Your task to perform on an android device: Search for "bose soundlink mini" on bestbuy, select the first entry, and add it to the cart. Image 0: 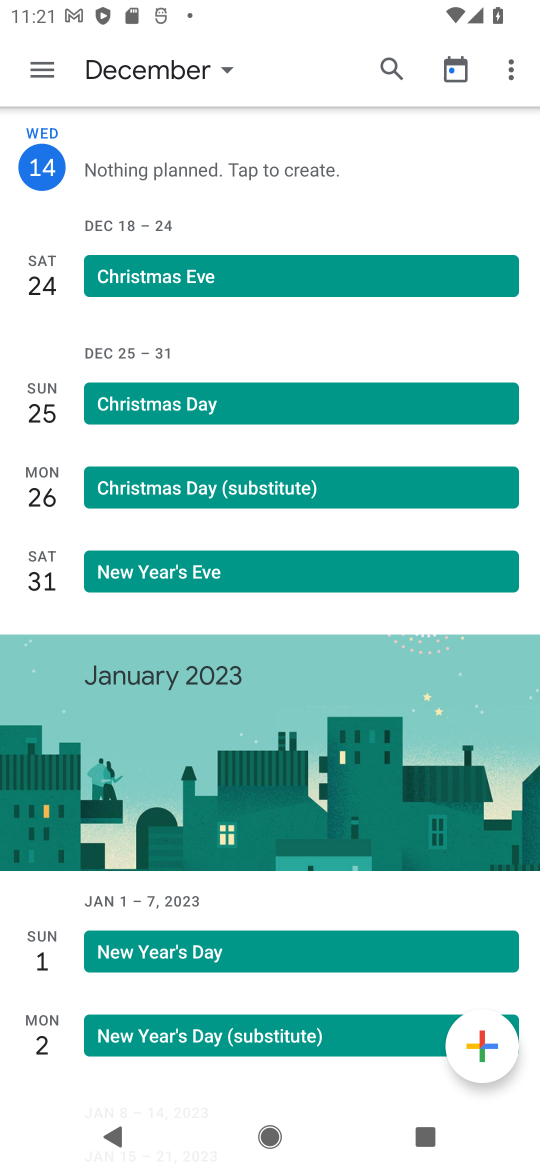
Step 0: press home button
Your task to perform on an android device: Search for "bose soundlink mini" on bestbuy, select the first entry, and add it to the cart. Image 1: 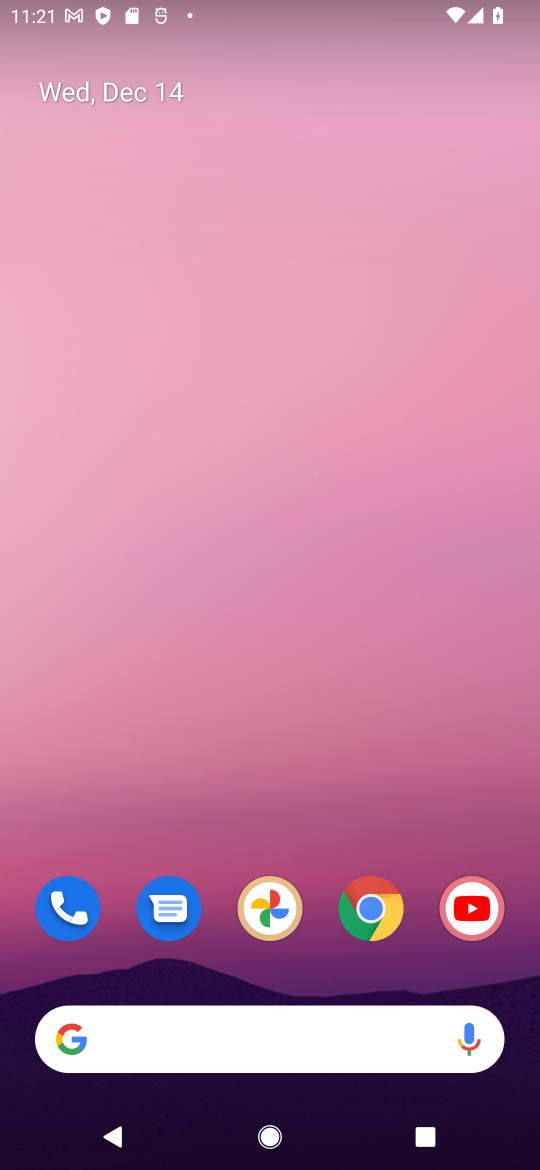
Step 1: click (370, 919)
Your task to perform on an android device: Search for "bose soundlink mini" on bestbuy, select the first entry, and add it to the cart. Image 2: 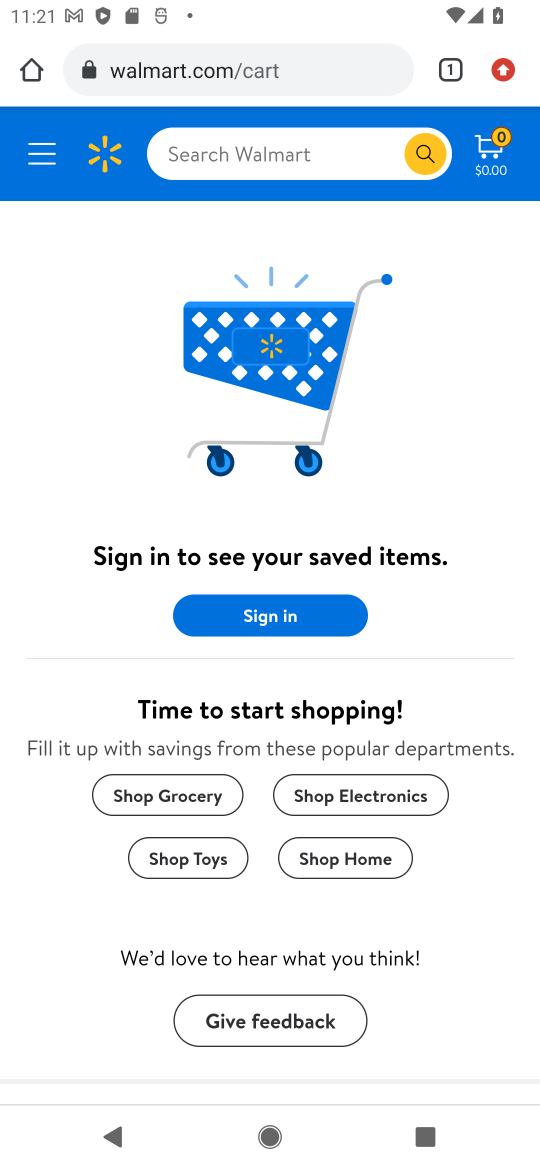
Step 2: click (212, 73)
Your task to perform on an android device: Search for "bose soundlink mini" on bestbuy, select the first entry, and add it to the cart. Image 3: 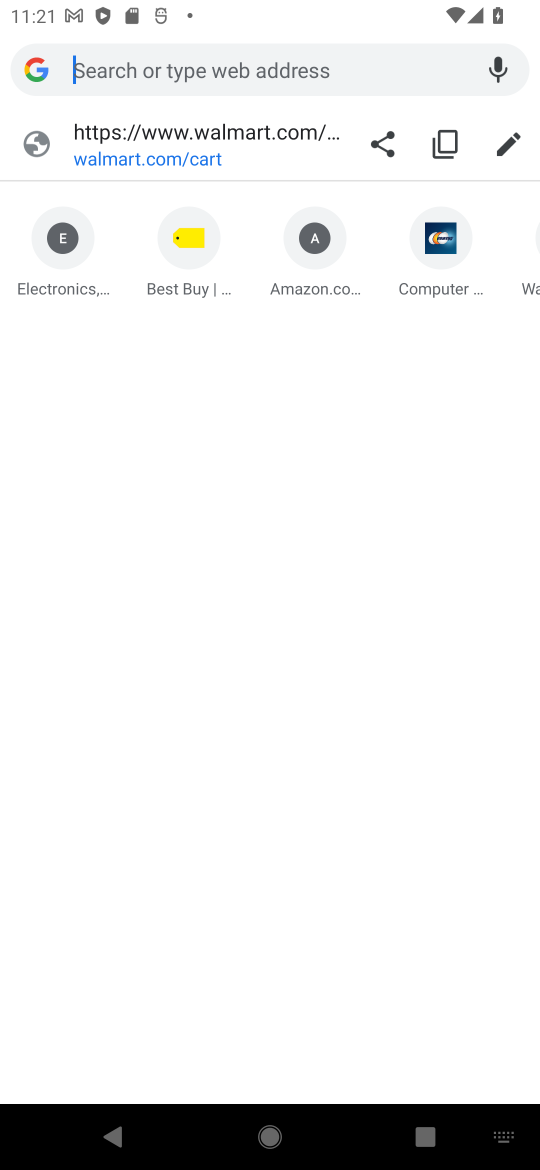
Step 3: click (174, 282)
Your task to perform on an android device: Search for "bose soundlink mini" on bestbuy, select the first entry, and add it to the cart. Image 4: 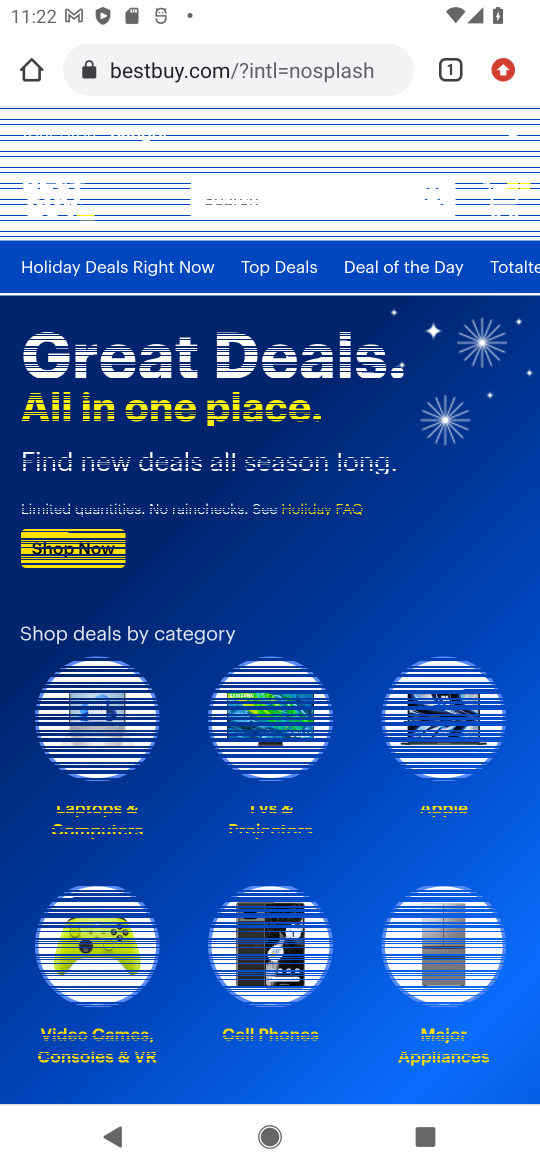
Step 4: click (229, 203)
Your task to perform on an android device: Search for "bose soundlink mini" on bestbuy, select the first entry, and add it to the cart. Image 5: 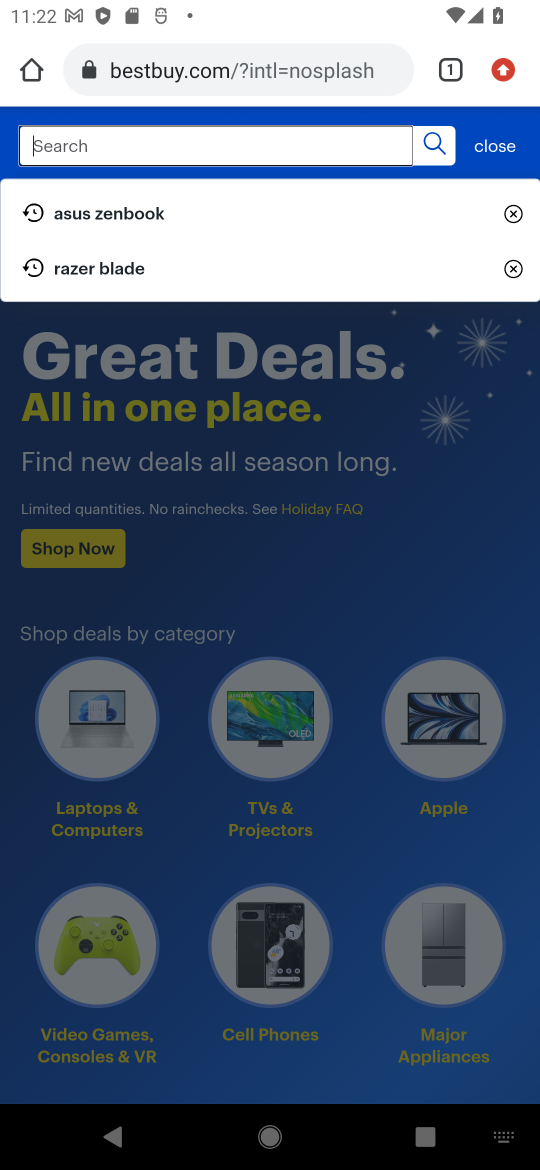
Step 5: type "bose soundlink mini"
Your task to perform on an android device: Search for "bose soundlink mini" on bestbuy, select the first entry, and add it to the cart. Image 6: 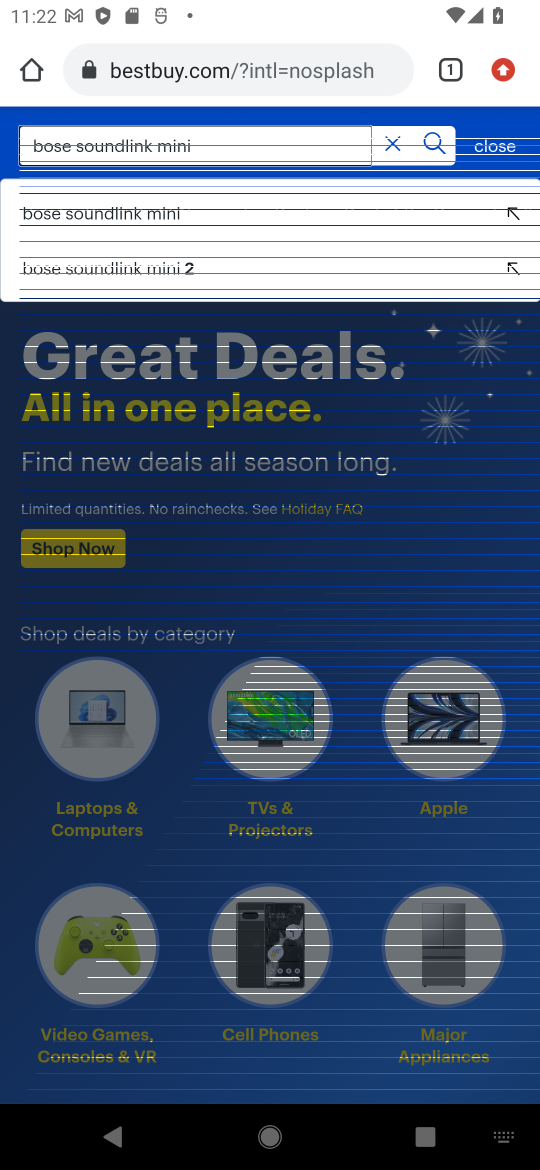
Step 6: click (82, 223)
Your task to perform on an android device: Search for "bose soundlink mini" on bestbuy, select the first entry, and add it to the cart. Image 7: 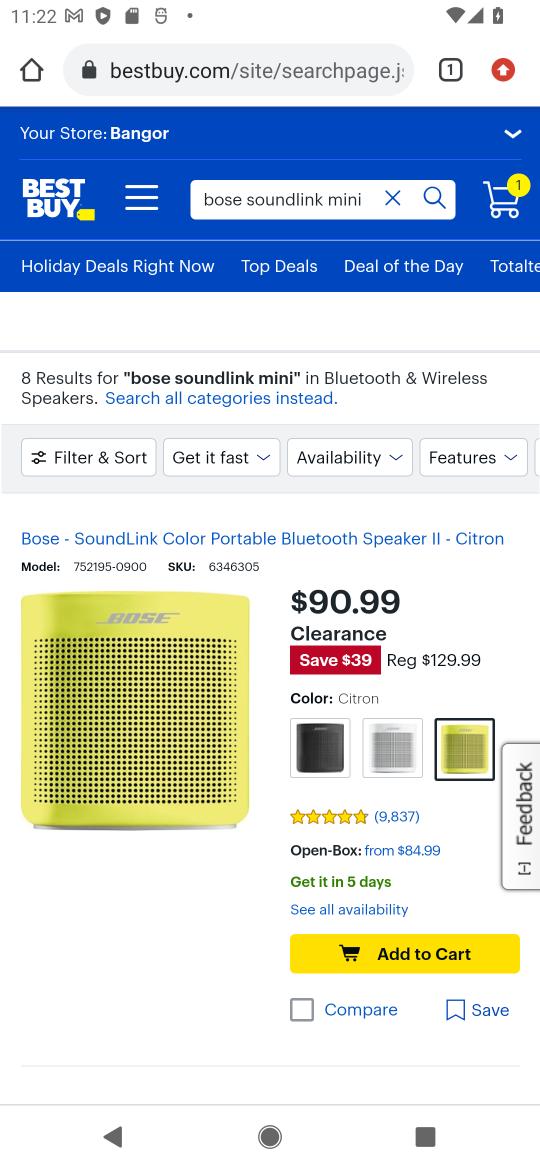
Step 7: task complete